Your task to perform on an android device: turn on data saver in the chrome app Image 0: 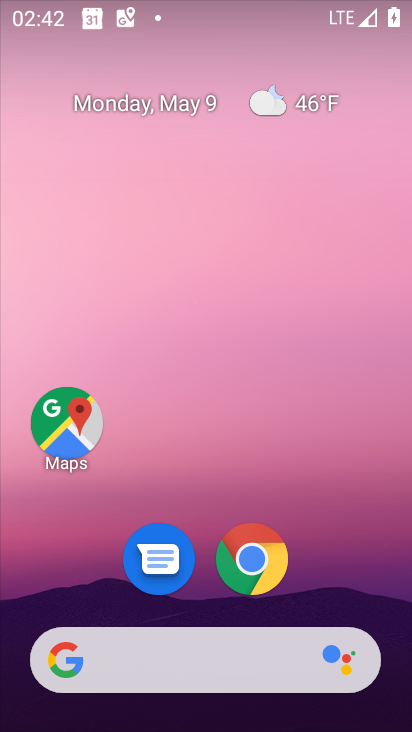
Step 0: click (251, 557)
Your task to perform on an android device: turn on data saver in the chrome app Image 1: 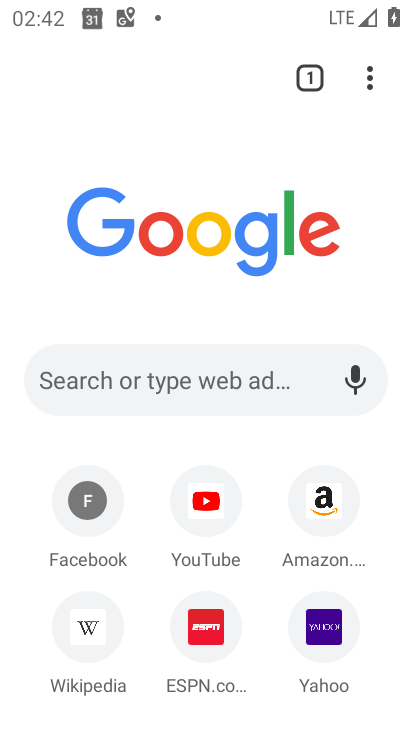
Step 1: click (373, 77)
Your task to perform on an android device: turn on data saver in the chrome app Image 2: 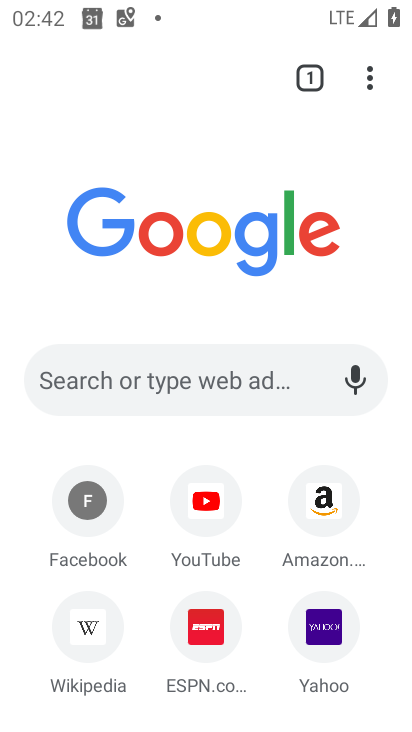
Step 2: click (371, 83)
Your task to perform on an android device: turn on data saver in the chrome app Image 3: 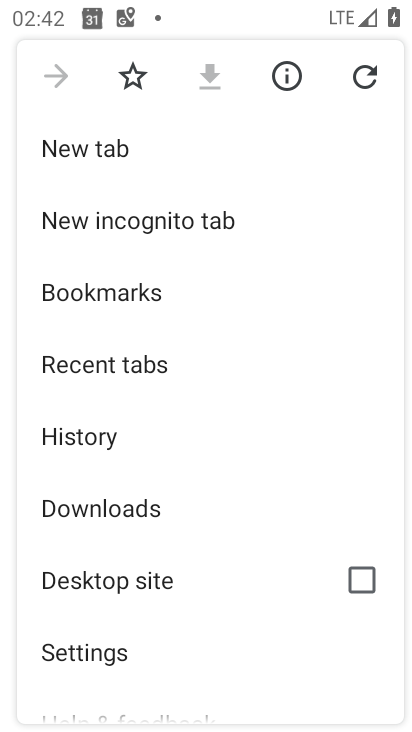
Step 3: click (103, 640)
Your task to perform on an android device: turn on data saver in the chrome app Image 4: 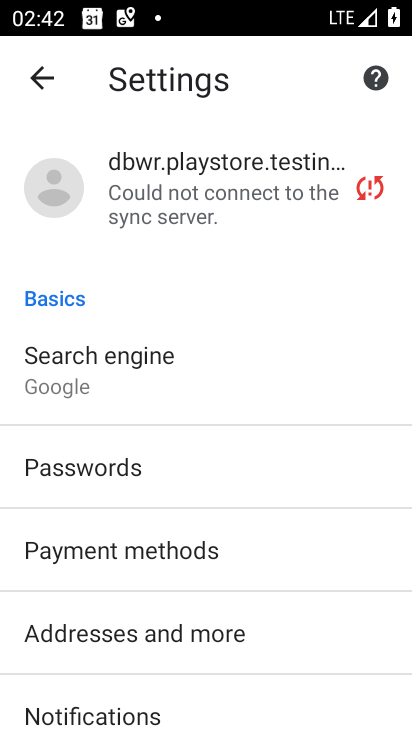
Step 4: drag from (214, 554) to (270, 430)
Your task to perform on an android device: turn on data saver in the chrome app Image 5: 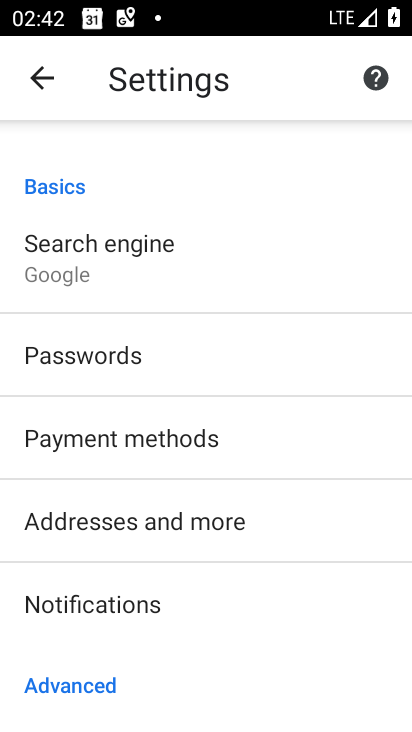
Step 5: drag from (141, 659) to (266, 466)
Your task to perform on an android device: turn on data saver in the chrome app Image 6: 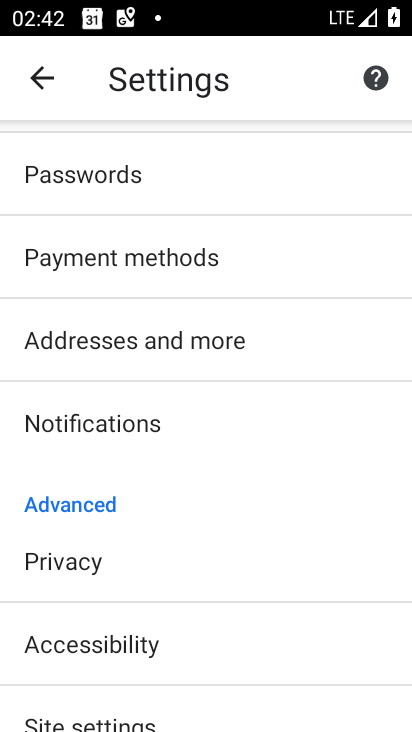
Step 6: drag from (198, 568) to (261, 397)
Your task to perform on an android device: turn on data saver in the chrome app Image 7: 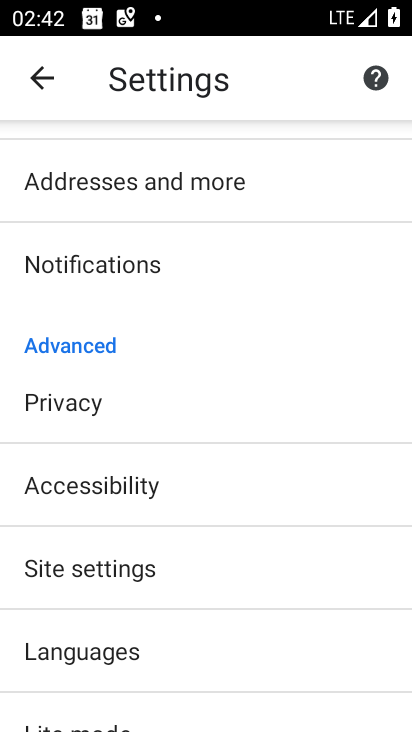
Step 7: drag from (185, 558) to (263, 457)
Your task to perform on an android device: turn on data saver in the chrome app Image 8: 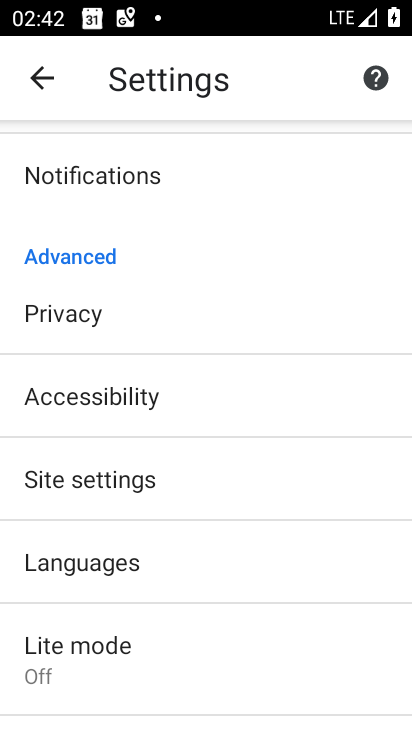
Step 8: click (117, 654)
Your task to perform on an android device: turn on data saver in the chrome app Image 9: 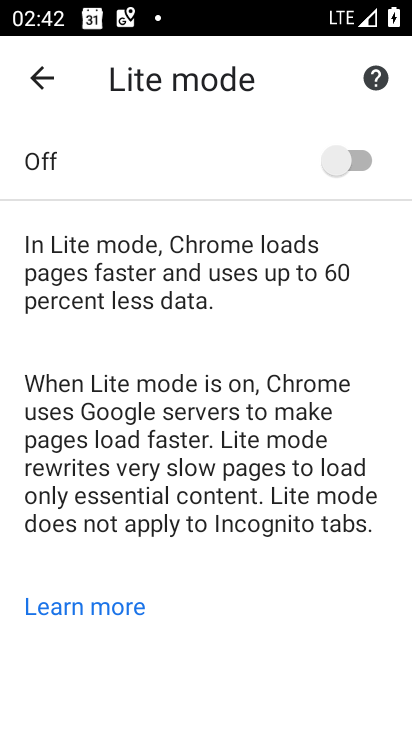
Step 9: click (346, 162)
Your task to perform on an android device: turn on data saver in the chrome app Image 10: 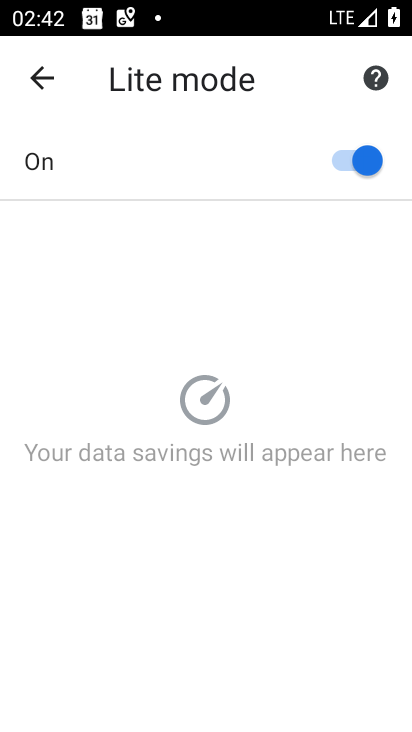
Step 10: task complete